Your task to perform on an android device: Open battery settings Image 0: 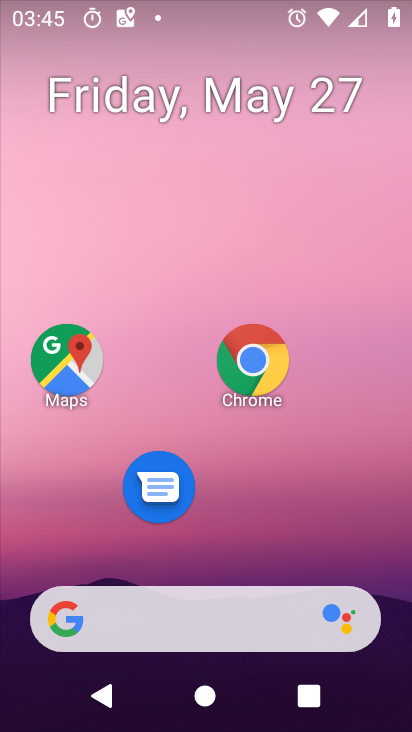
Step 0: drag from (267, 511) to (248, 86)
Your task to perform on an android device: Open battery settings Image 1: 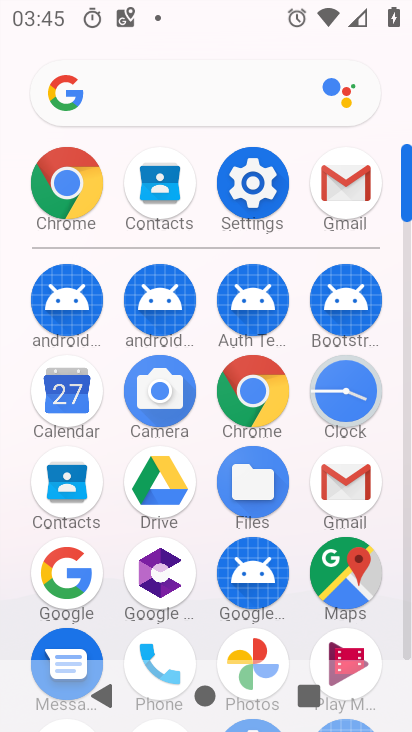
Step 1: click (265, 191)
Your task to perform on an android device: Open battery settings Image 2: 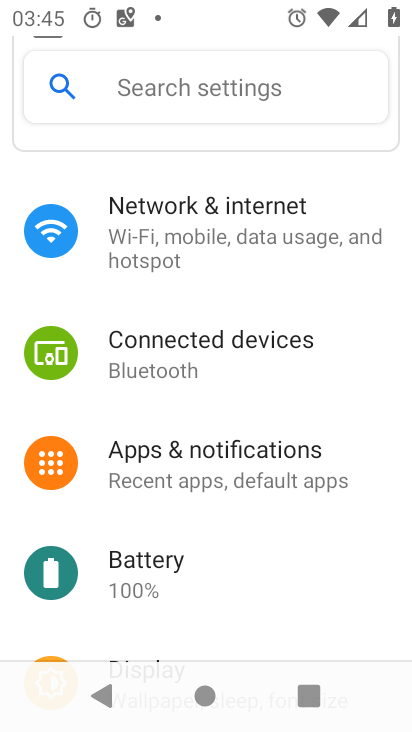
Step 2: drag from (263, 532) to (287, 252)
Your task to perform on an android device: Open battery settings Image 3: 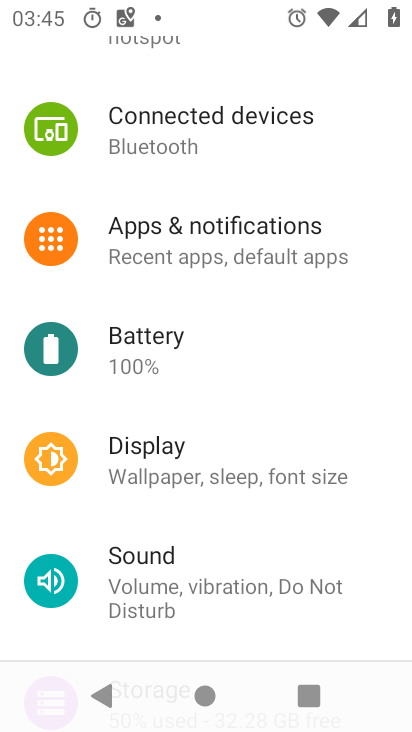
Step 3: click (165, 337)
Your task to perform on an android device: Open battery settings Image 4: 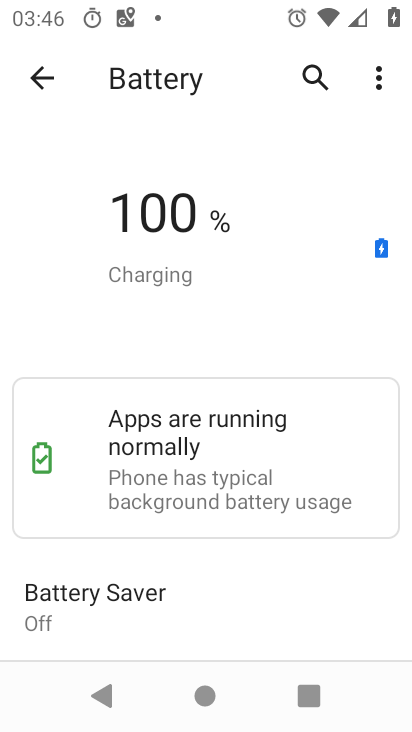
Step 4: task complete